Your task to perform on an android device: turn on airplane mode Image 0: 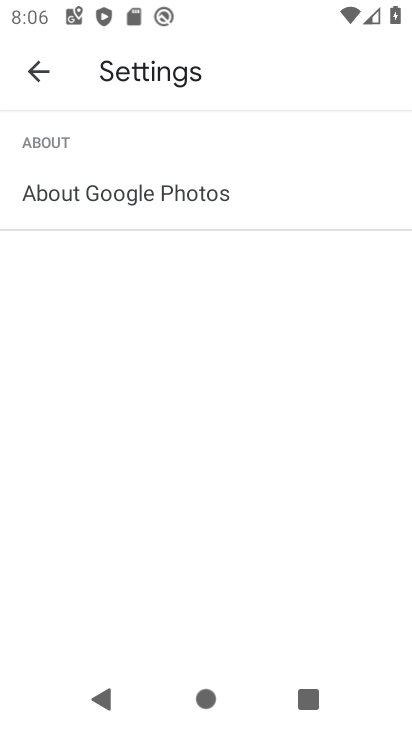
Step 0: press home button
Your task to perform on an android device: turn on airplane mode Image 1: 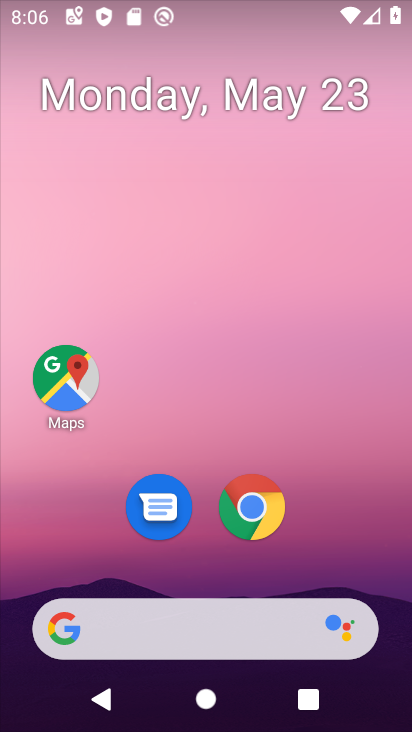
Step 1: drag from (373, 554) to (309, 198)
Your task to perform on an android device: turn on airplane mode Image 2: 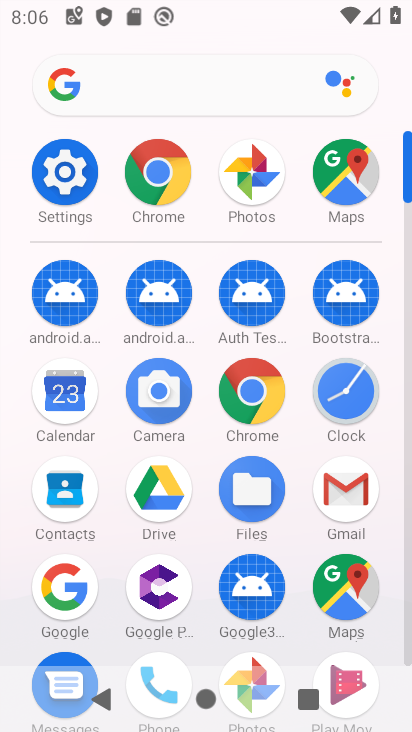
Step 2: click (49, 184)
Your task to perform on an android device: turn on airplane mode Image 3: 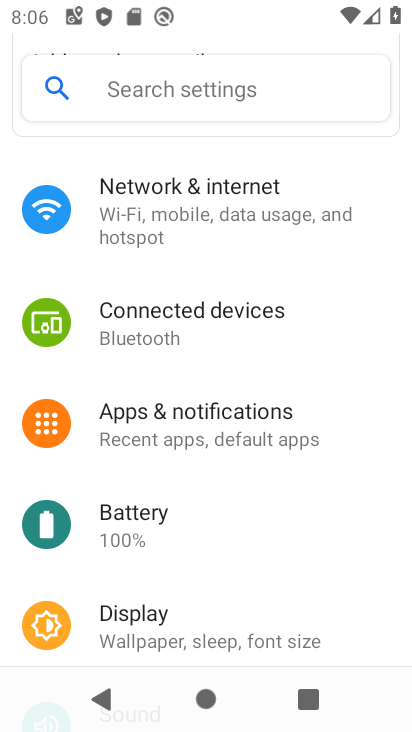
Step 3: click (223, 220)
Your task to perform on an android device: turn on airplane mode Image 4: 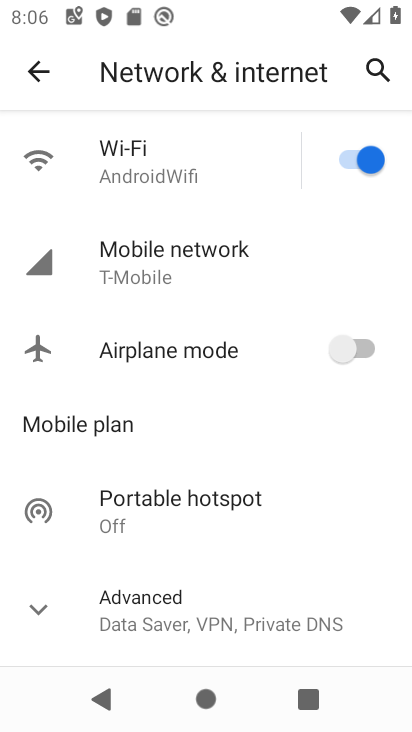
Step 4: click (365, 352)
Your task to perform on an android device: turn on airplane mode Image 5: 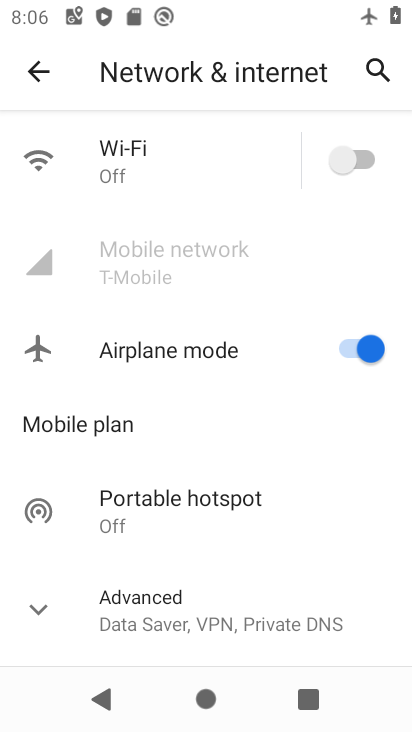
Step 5: task complete